Your task to perform on an android device: open wifi settings Image 0: 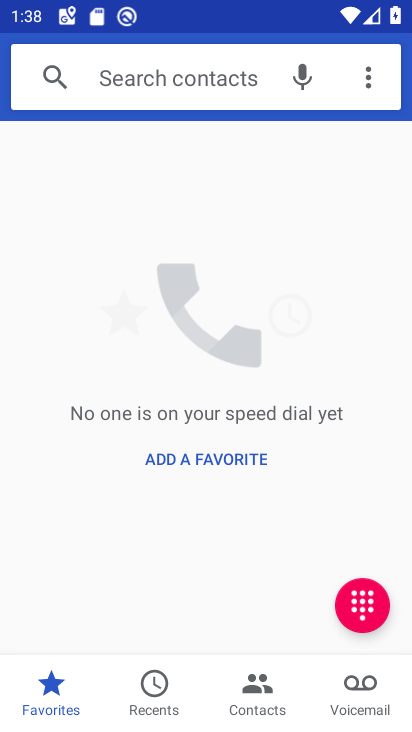
Step 0: press home button
Your task to perform on an android device: open wifi settings Image 1: 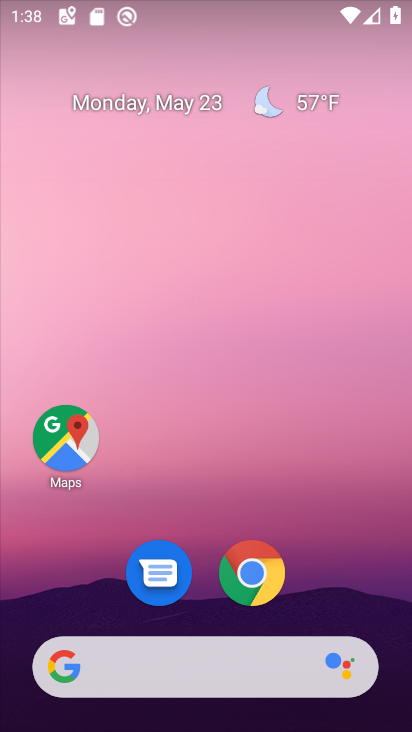
Step 1: drag from (323, 610) to (332, 84)
Your task to perform on an android device: open wifi settings Image 2: 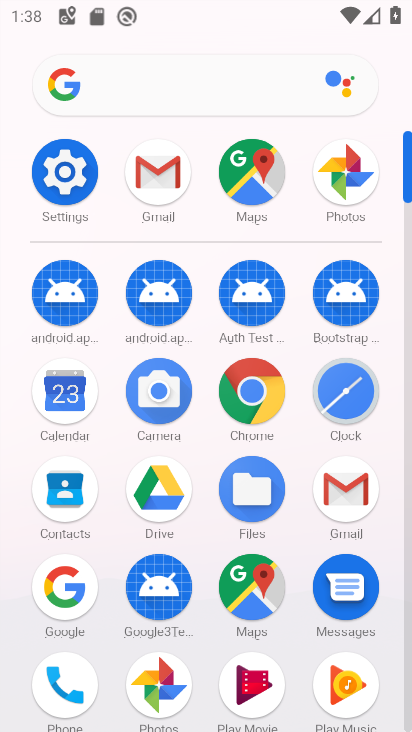
Step 2: click (64, 162)
Your task to perform on an android device: open wifi settings Image 3: 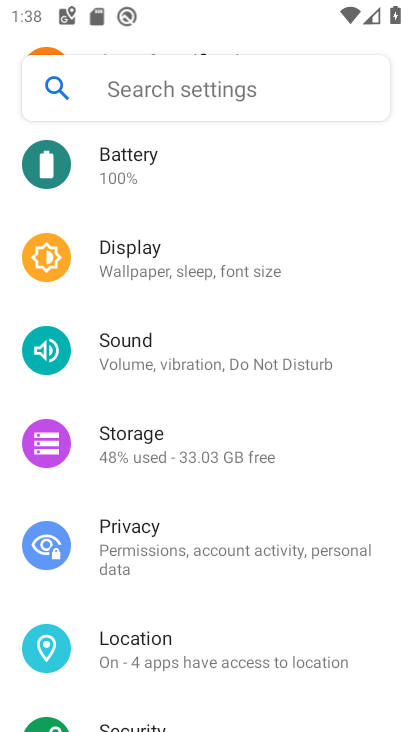
Step 3: drag from (230, 206) to (272, 538)
Your task to perform on an android device: open wifi settings Image 4: 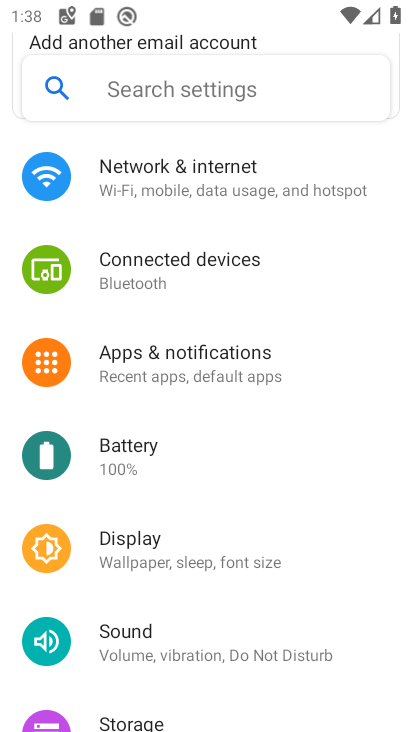
Step 4: click (241, 183)
Your task to perform on an android device: open wifi settings Image 5: 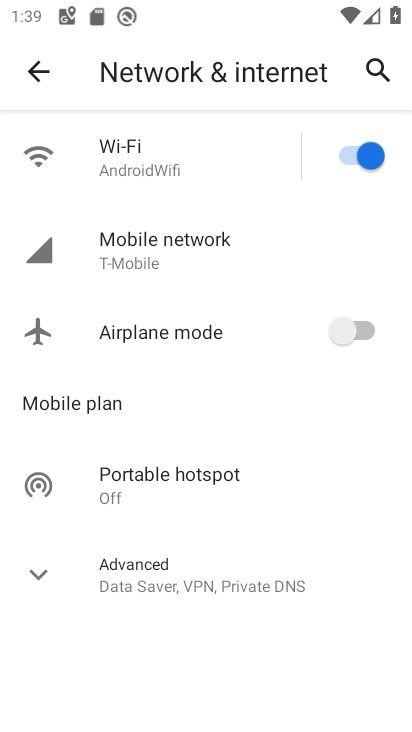
Step 5: click (161, 160)
Your task to perform on an android device: open wifi settings Image 6: 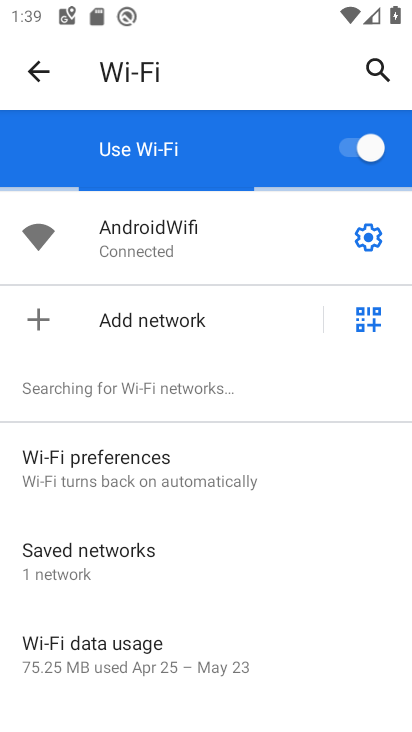
Step 6: task complete